Your task to perform on an android device: open the mobile data screen to see how much data has been used Image 0: 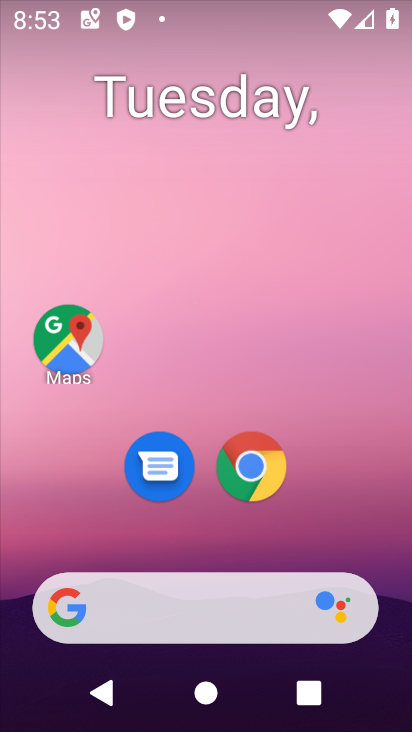
Step 0: drag from (362, 530) to (319, 123)
Your task to perform on an android device: open the mobile data screen to see how much data has been used Image 1: 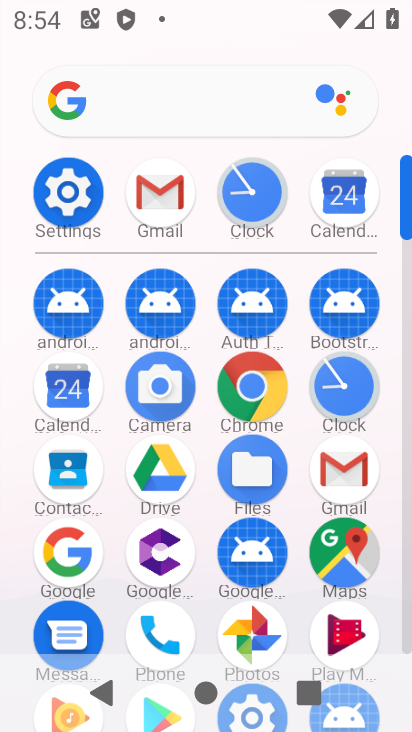
Step 1: click (74, 210)
Your task to perform on an android device: open the mobile data screen to see how much data has been used Image 2: 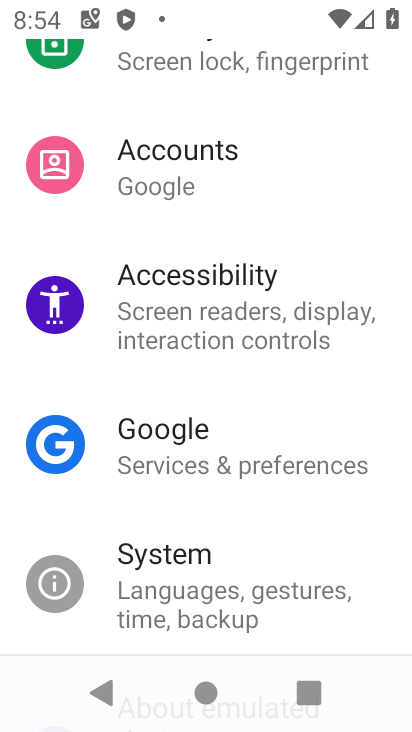
Step 2: drag from (184, 179) to (183, 662)
Your task to perform on an android device: open the mobile data screen to see how much data has been used Image 3: 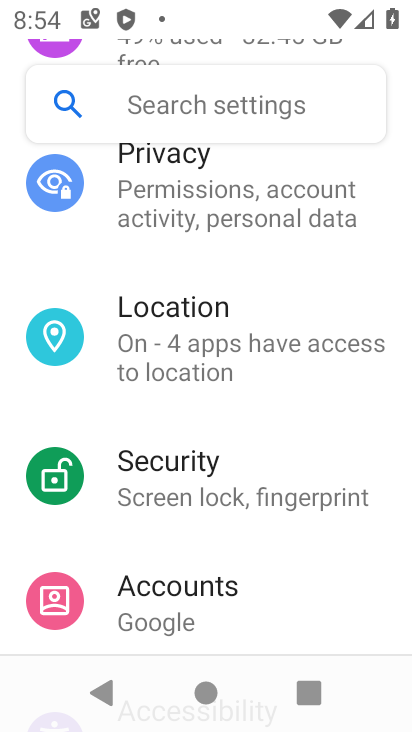
Step 3: drag from (189, 222) to (216, 620)
Your task to perform on an android device: open the mobile data screen to see how much data has been used Image 4: 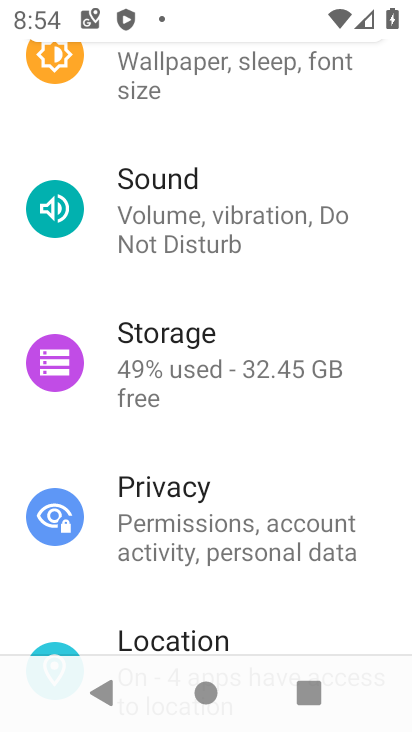
Step 4: drag from (208, 177) to (172, 730)
Your task to perform on an android device: open the mobile data screen to see how much data has been used Image 5: 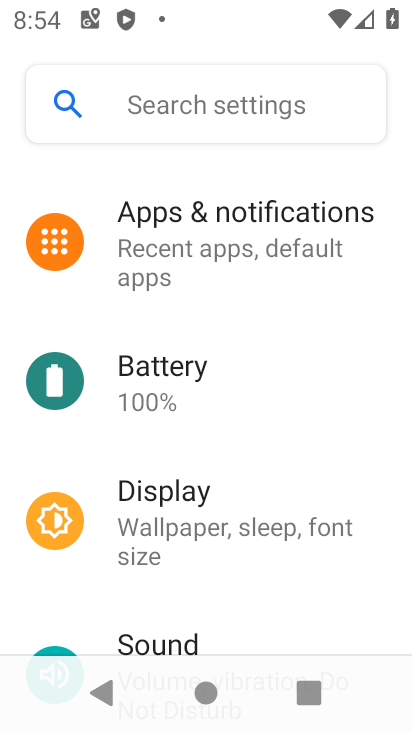
Step 5: drag from (254, 342) to (203, 619)
Your task to perform on an android device: open the mobile data screen to see how much data has been used Image 6: 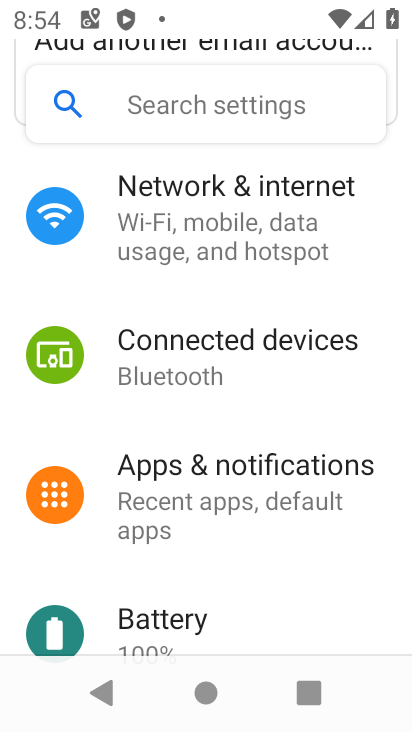
Step 6: click (213, 202)
Your task to perform on an android device: open the mobile data screen to see how much data has been used Image 7: 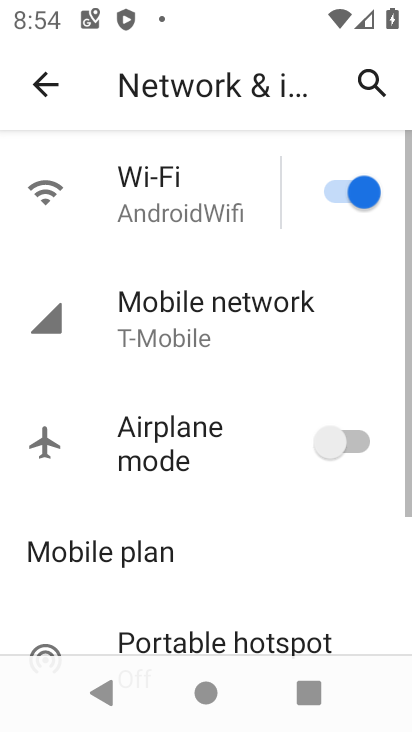
Step 7: click (163, 327)
Your task to perform on an android device: open the mobile data screen to see how much data has been used Image 8: 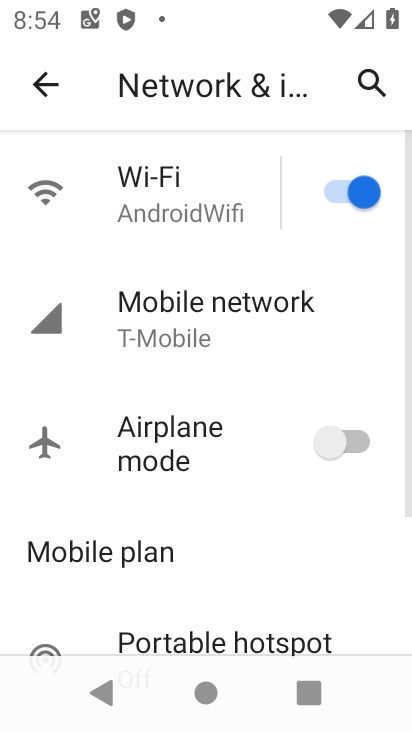
Step 8: task complete